Your task to perform on an android device: What's the weather today? Image 0: 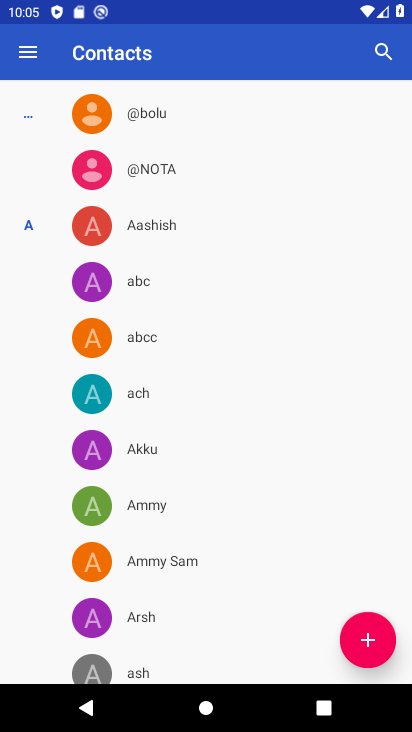
Step 0: press home button
Your task to perform on an android device: What's the weather today? Image 1: 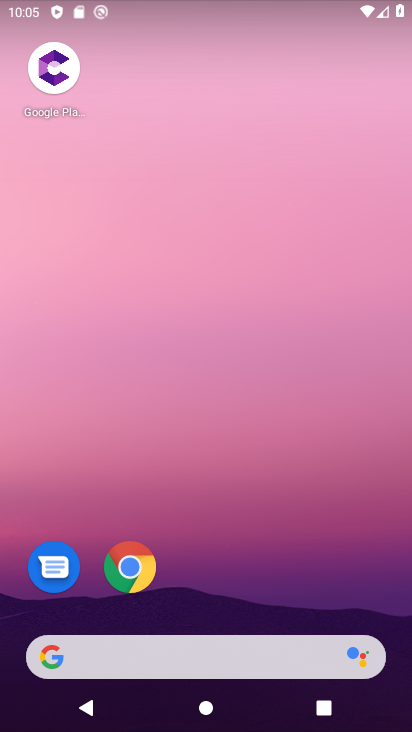
Step 1: click (173, 640)
Your task to perform on an android device: What's the weather today? Image 2: 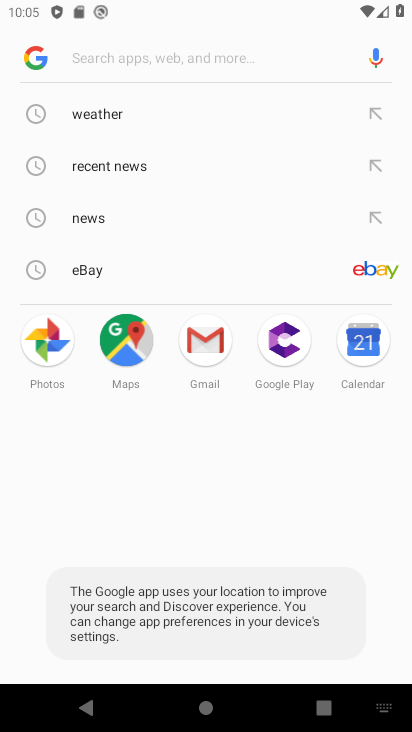
Step 2: click (112, 110)
Your task to perform on an android device: What's the weather today? Image 3: 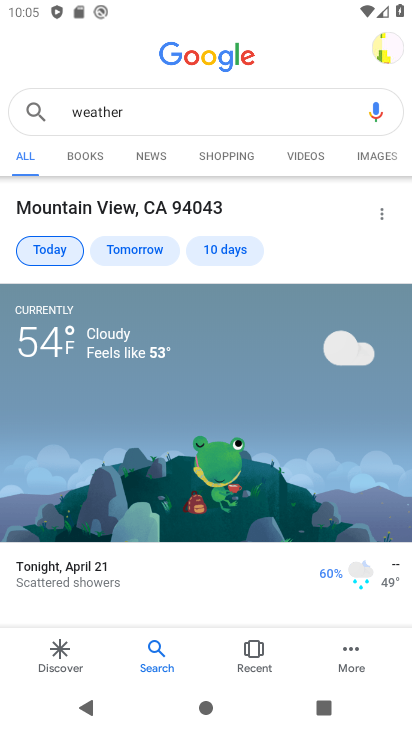
Step 3: task complete